Your task to perform on an android device: Look up the best rated gaming chairs on Target. Image 0: 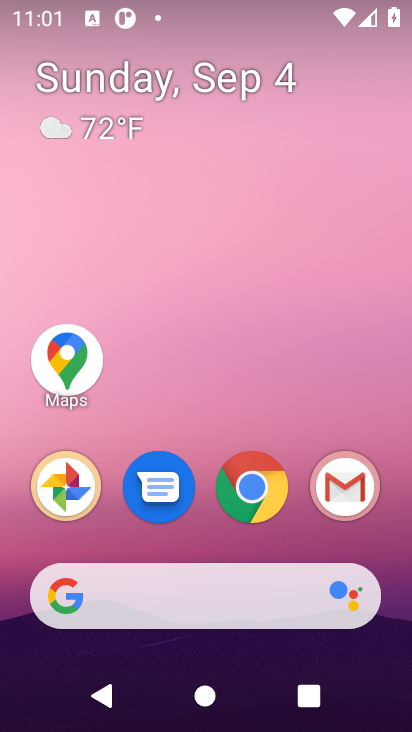
Step 0: click (184, 580)
Your task to perform on an android device: Look up the best rated gaming chairs on Target. Image 1: 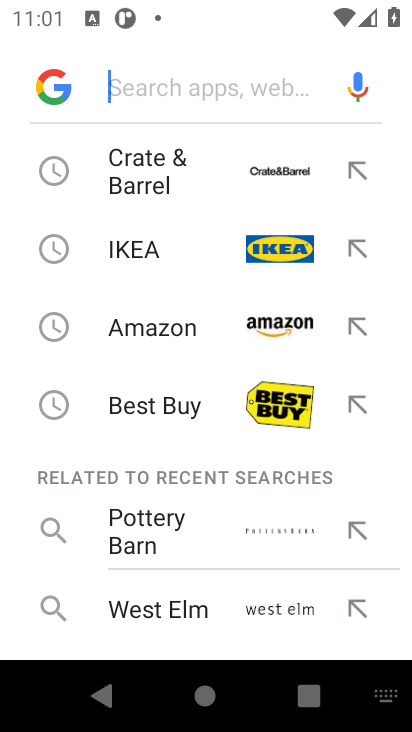
Step 1: type "target"
Your task to perform on an android device: Look up the best rated gaming chairs on Target. Image 2: 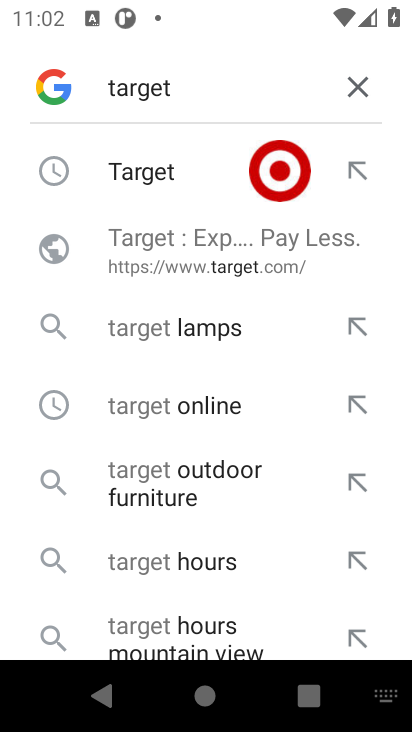
Step 2: click (274, 152)
Your task to perform on an android device: Look up the best rated gaming chairs on Target. Image 3: 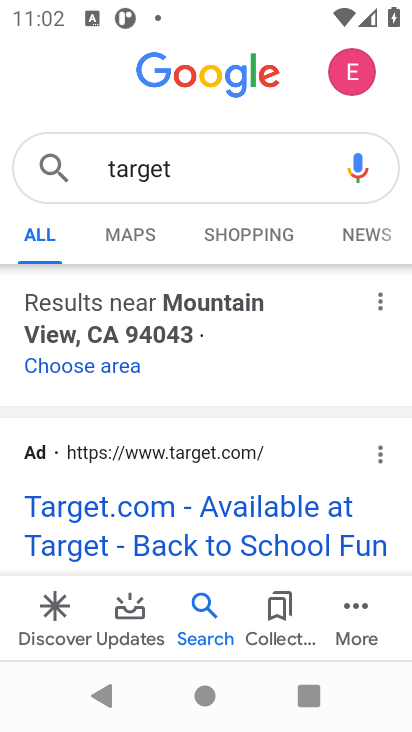
Step 3: click (185, 542)
Your task to perform on an android device: Look up the best rated gaming chairs on Target. Image 4: 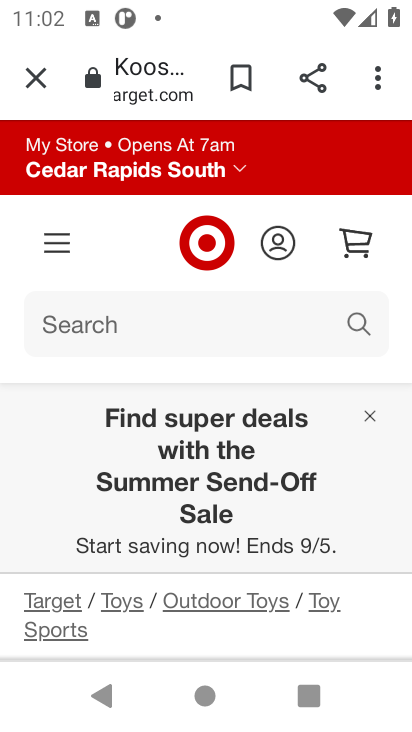
Step 4: click (354, 326)
Your task to perform on an android device: Look up the best rated gaming chairs on Target. Image 5: 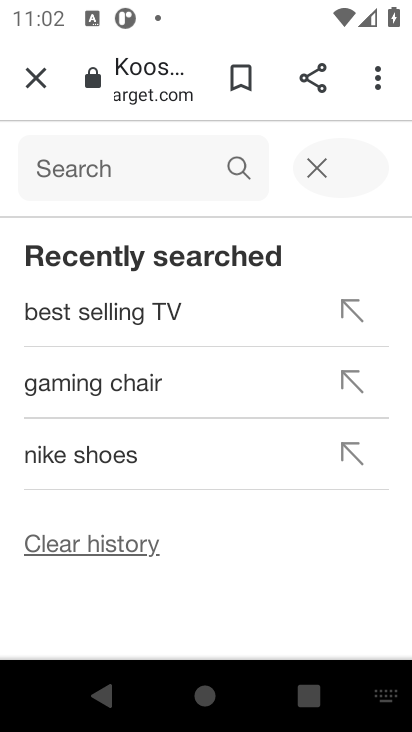
Step 5: type "gaming chairs"
Your task to perform on an android device: Look up the best rated gaming chairs on Target. Image 6: 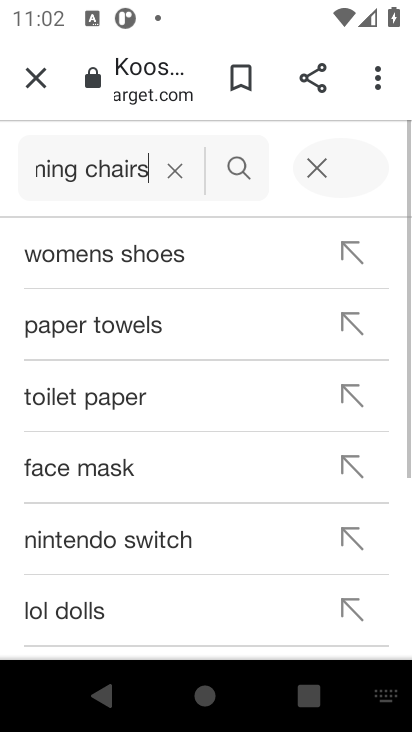
Step 6: type ""
Your task to perform on an android device: Look up the best rated gaming chairs on Target. Image 7: 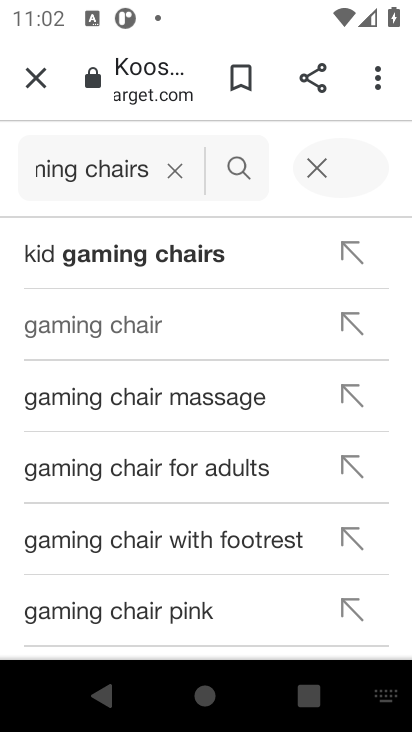
Step 7: click (254, 167)
Your task to perform on an android device: Look up the best rated gaming chairs on Target. Image 8: 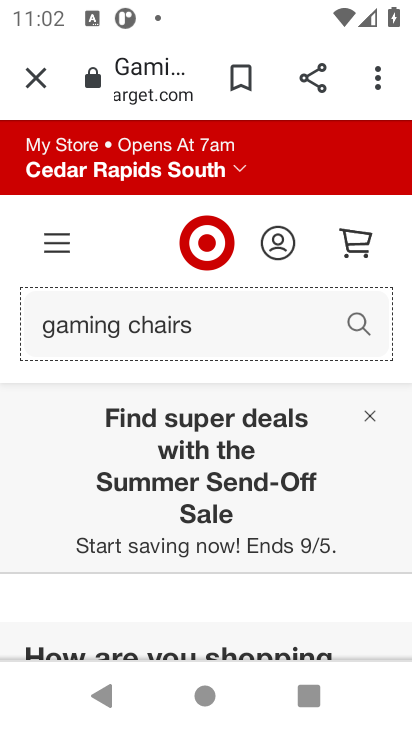
Step 8: task complete